Your task to perform on an android device: check data usage Image 0: 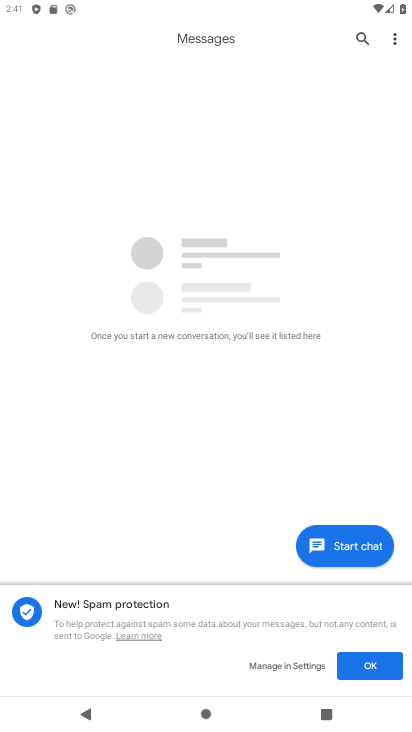
Step 0: press home button
Your task to perform on an android device: check data usage Image 1: 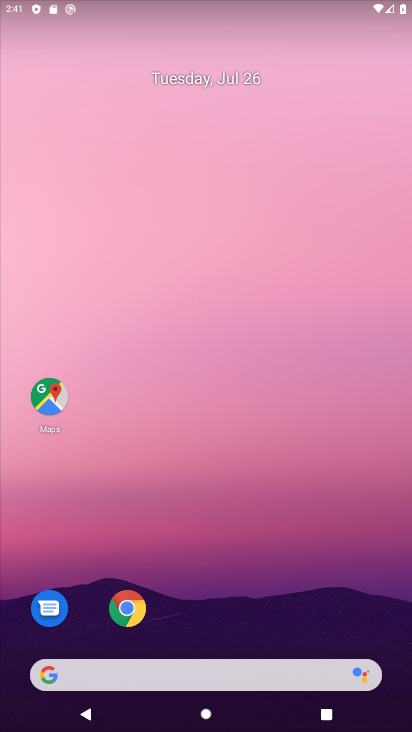
Step 1: drag from (173, 603) to (262, 0)
Your task to perform on an android device: check data usage Image 2: 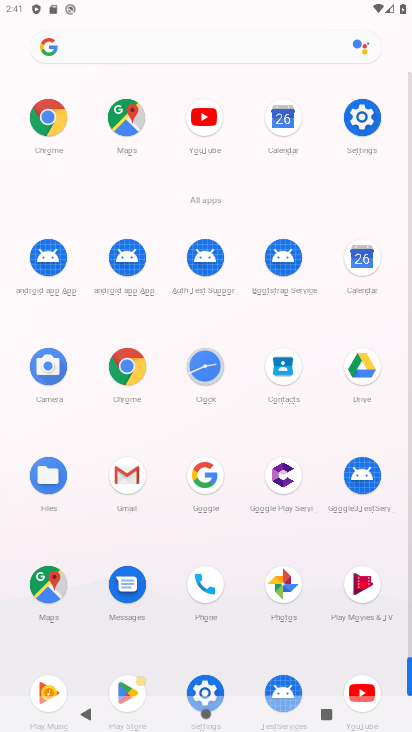
Step 2: drag from (205, 664) to (209, 588)
Your task to perform on an android device: check data usage Image 3: 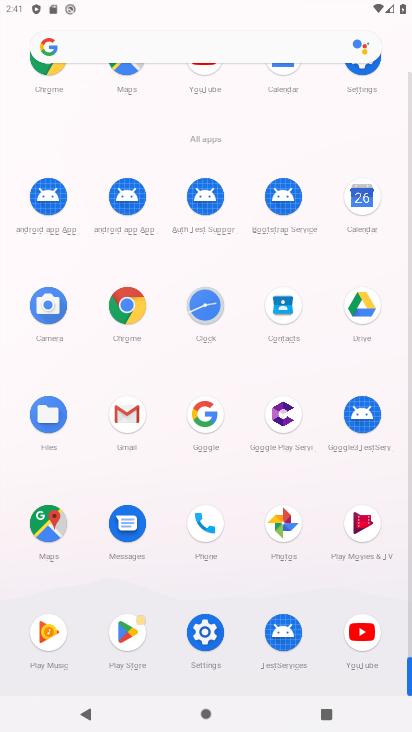
Step 3: click (205, 638)
Your task to perform on an android device: check data usage Image 4: 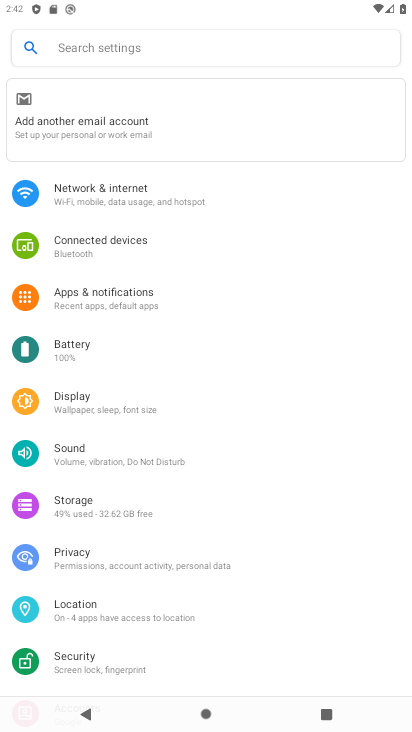
Step 4: click (120, 183)
Your task to perform on an android device: check data usage Image 5: 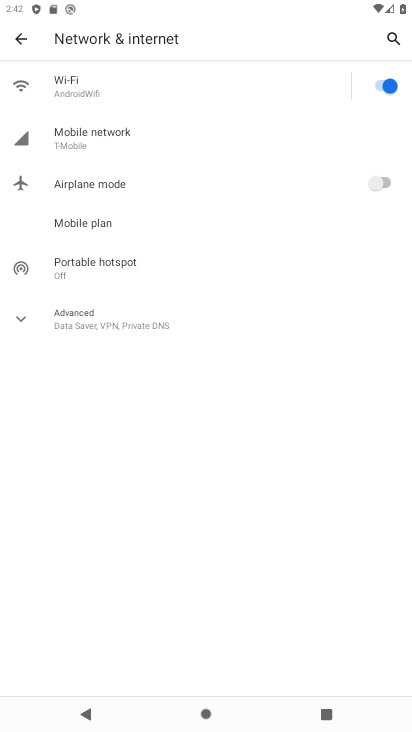
Step 5: click (91, 137)
Your task to perform on an android device: check data usage Image 6: 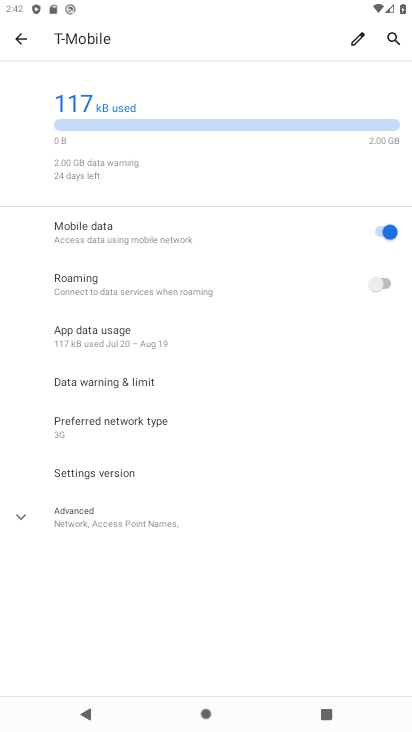
Step 6: click (105, 351)
Your task to perform on an android device: check data usage Image 7: 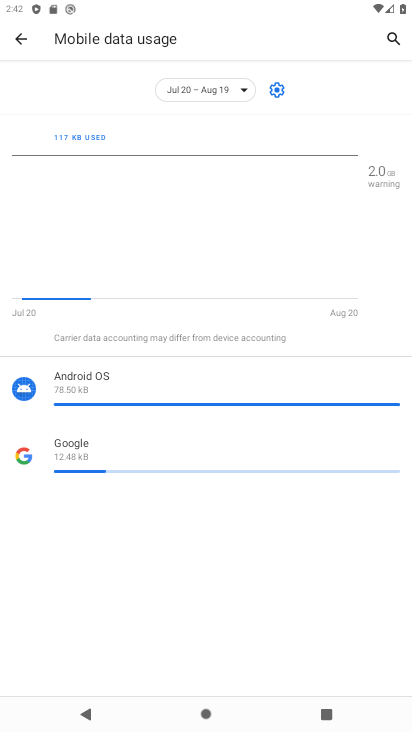
Step 7: task complete